Your task to perform on an android device: Open Google Chrome and click the shortcut for Amazon.com Image 0: 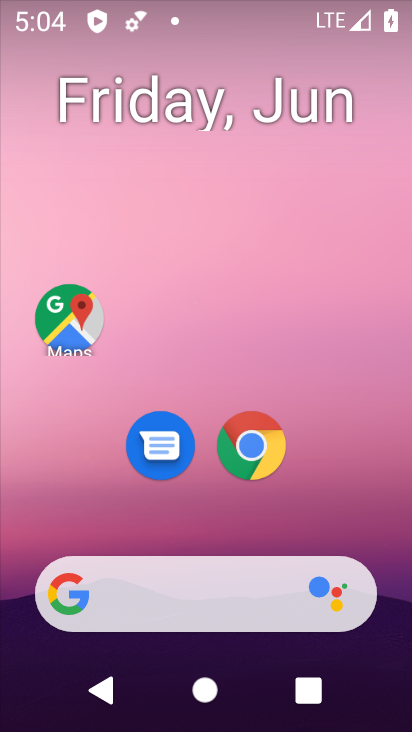
Step 0: drag from (380, 557) to (293, 14)
Your task to perform on an android device: Open Google Chrome and click the shortcut for Amazon.com Image 1: 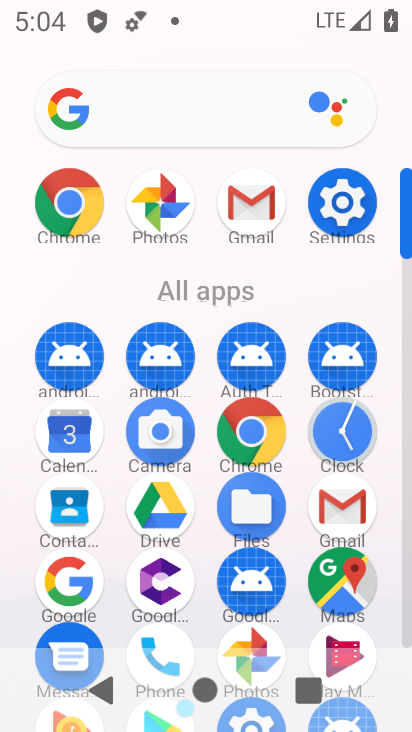
Step 1: drag from (12, 602) to (26, 225)
Your task to perform on an android device: Open Google Chrome and click the shortcut for Amazon.com Image 2: 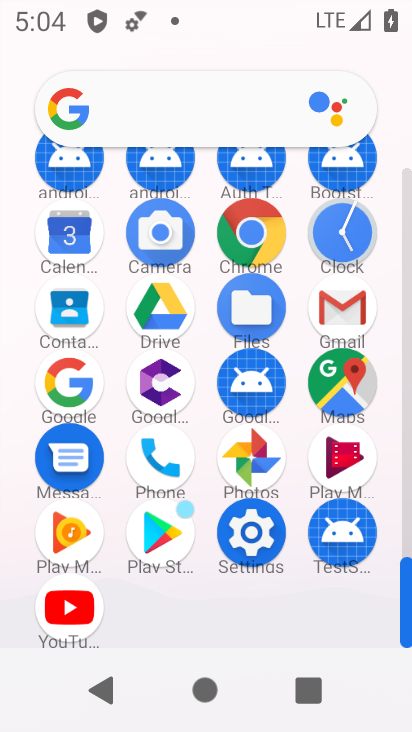
Step 2: click (252, 225)
Your task to perform on an android device: Open Google Chrome and click the shortcut for Amazon.com Image 3: 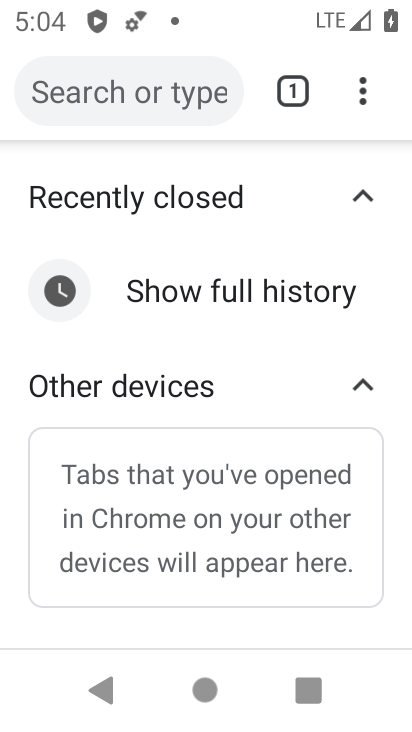
Step 3: click (148, 81)
Your task to perform on an android device: Open Google Chrome and click the shortcut for Amazon.com Image 4: 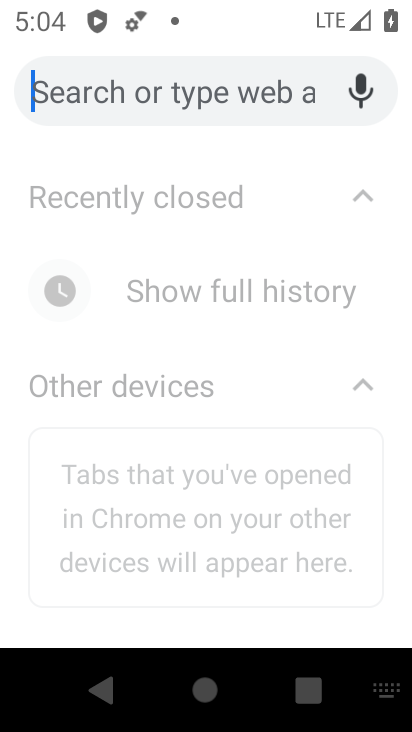
Step 4: type "Amazon.com"
Your task to perform on an android device: Open Google Chrome and click the shortcut for Amazon.com Image 5: 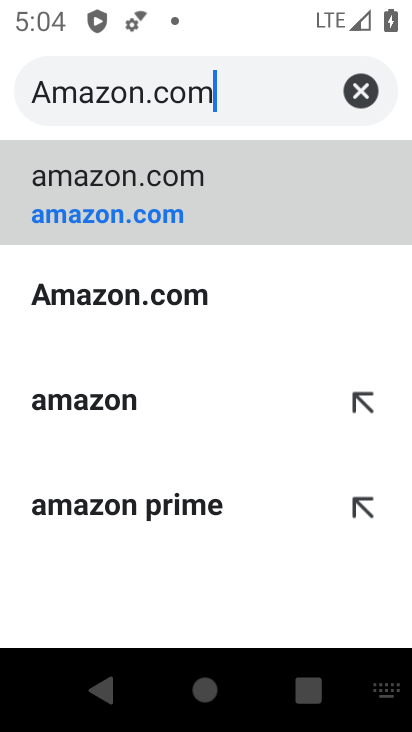
Step 5: type ""
Your task to perform on an android device: Open Google Chrome and click the shortcut for Amazon.com Image 6: 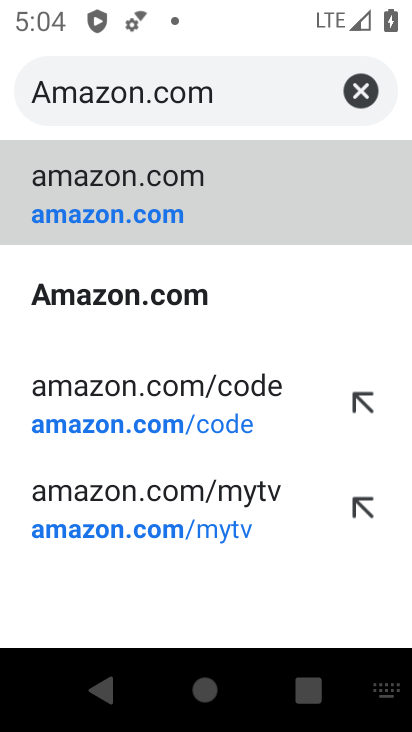
Step 6: click (160, 190)
Your task to perform on an android device: Open Google Chrome and click the shortcut for Amazon.com Image 7: 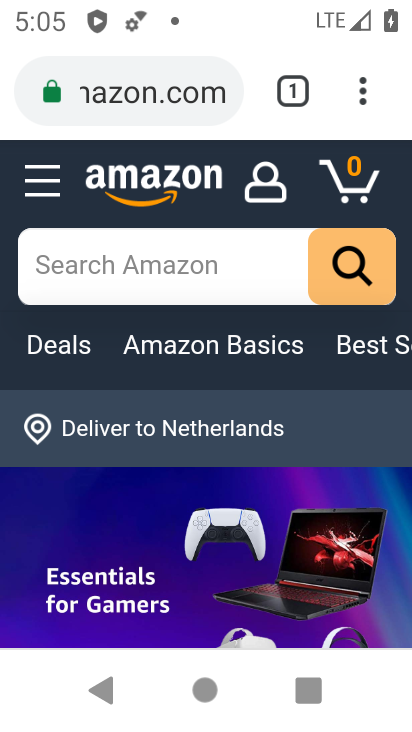
Step 7: drag from (363, 93) to (223, 304)
Your task to perform on an android device: Open Google Chrome and click the shortcut for Amazon.com Image 8: 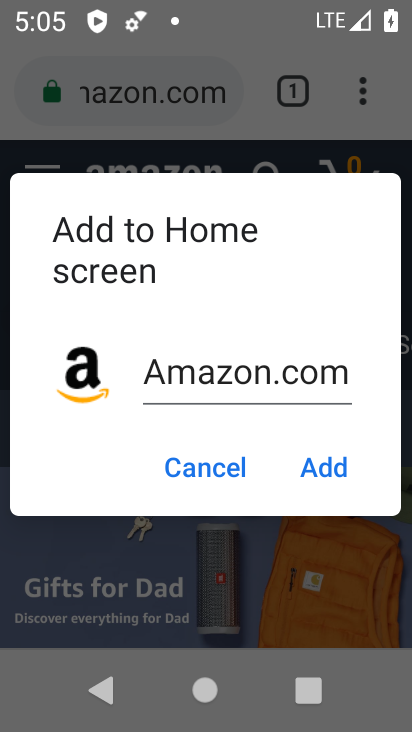
Step 8: click (312, 467)
Your task to perform on an android device: Open Google Chrome and click the shortcut for Amazon.com Image 9: 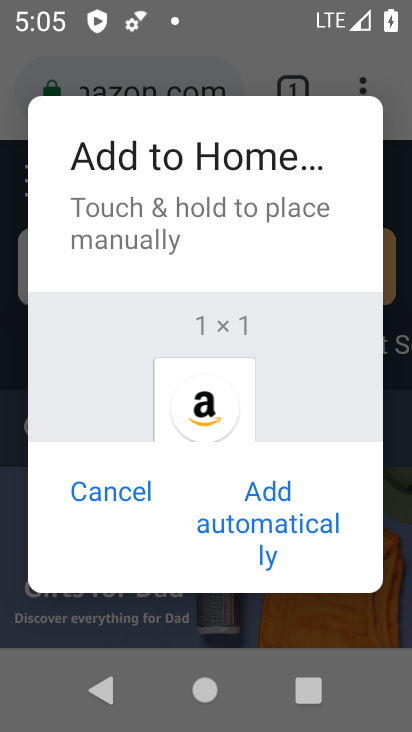
Step 9: click (268, 504)
Your task to perform on an android device: Open Google Chrome and click the shortcut for Amazon.com Image 10: 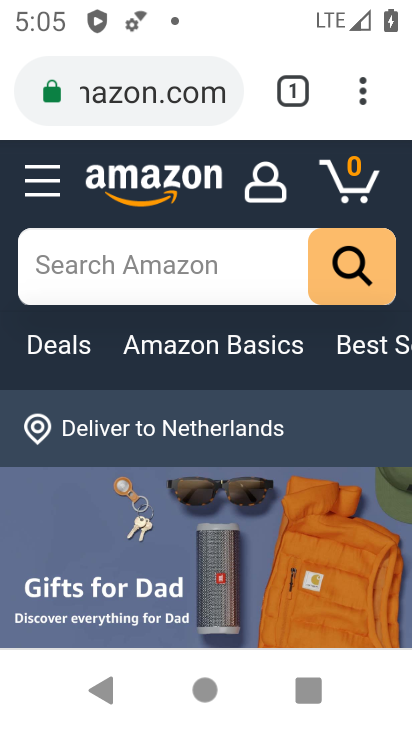
Step 10: task complete